Your task to perform on an android device: turn on improve location accuracy Image 0: 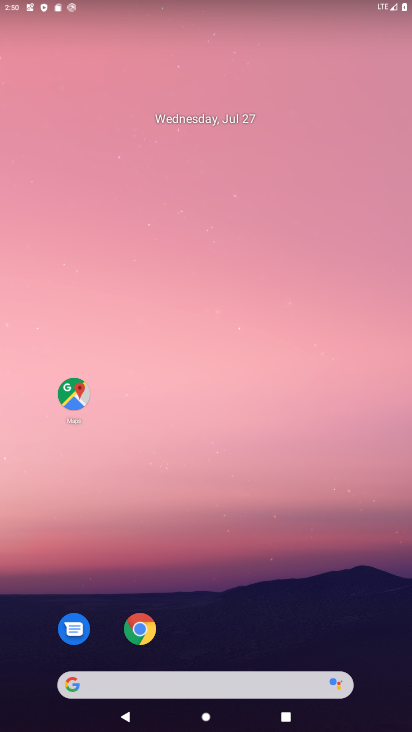
Step 0: click (176, 364)
Your task to perform on an android device: turn on improve location accuracy Image 1: 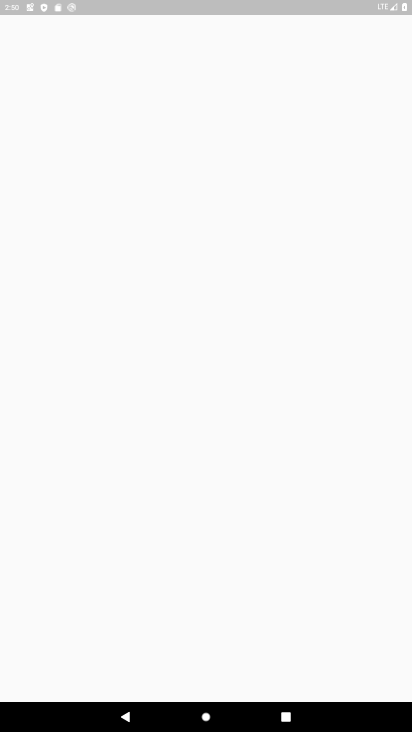
Step 1: drag from (188, 11) to (210, 416)
Your task to perform on an android device: turn on improve location accuracy Image 2: 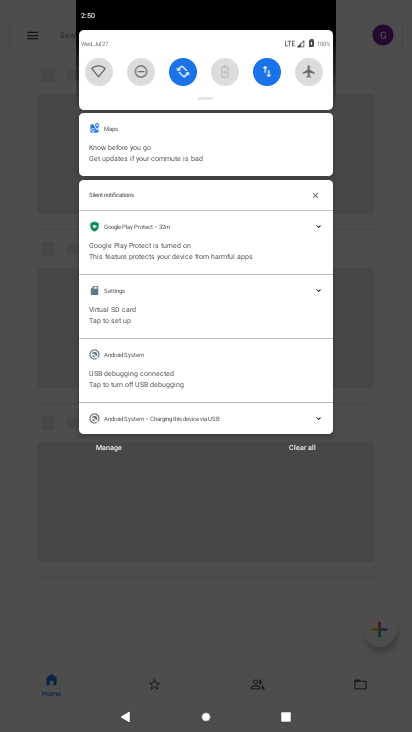
Step 2: press home button
Your task to perform on an android device: turn on improve location accuracy Image 3: 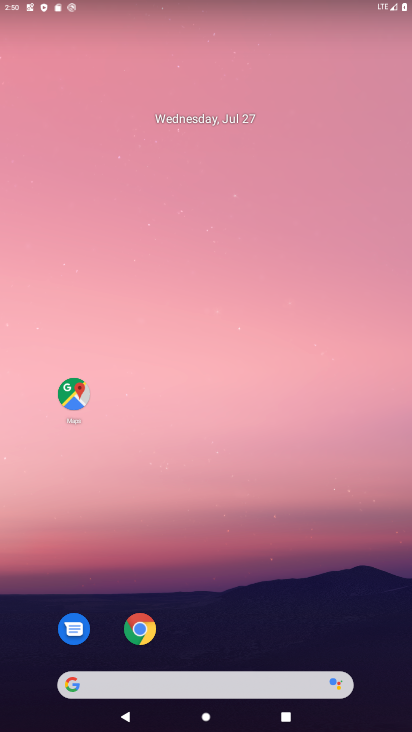
Step 3: drag from (200, 636) to (232, 33)
Your task to perform on an android device: turn on improve location accuracy Image 4: 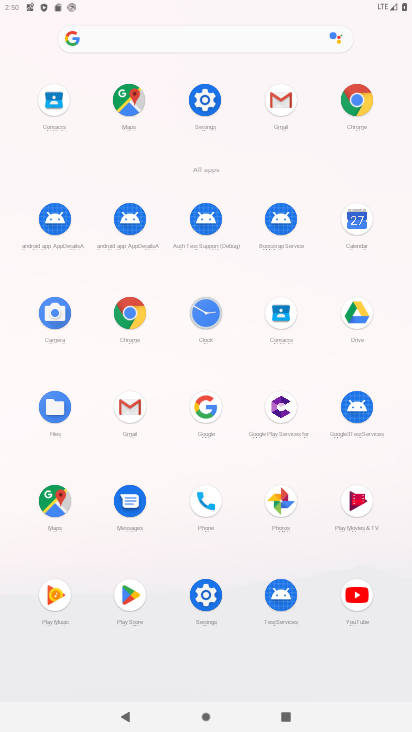
Step 4: click (194, 118)
Your task to perform on an android device: turn on improve location accuracy Image 5: 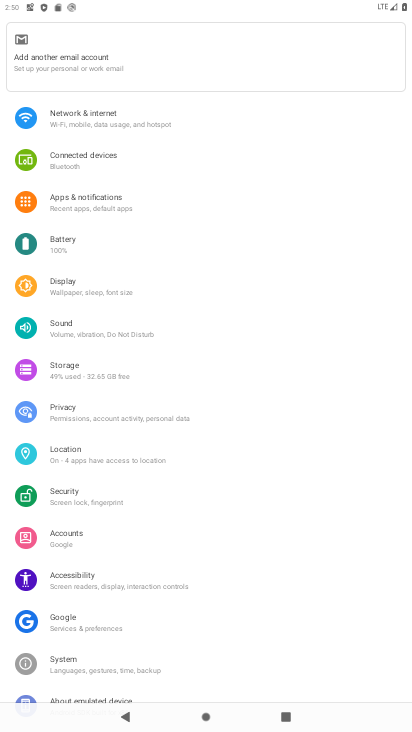
Step 5: click (113, 458)
Your task to perform on an android device: turn on improve location accuracy Image 6: 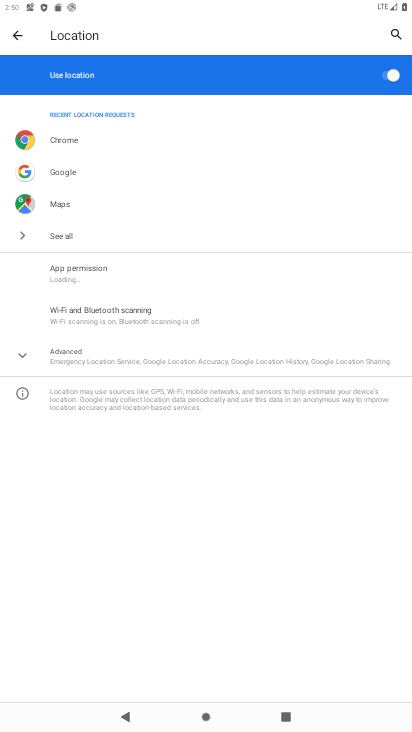
Step 6: click (79, 363)
Your task to perform on an android device: turn on improve location accuracy Image 7: 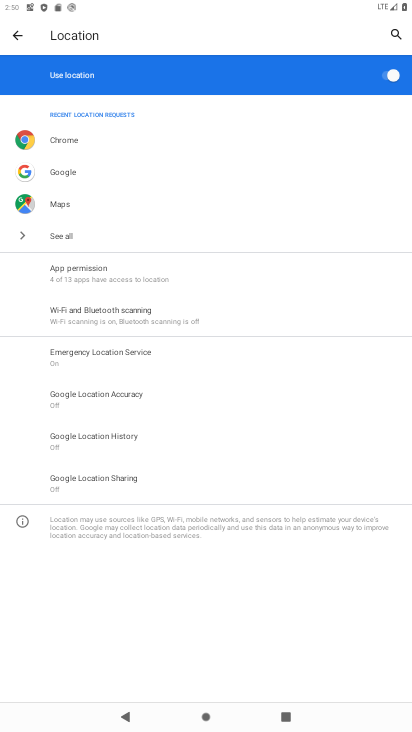
Step 7: click (73, 390)
Your task to perform on an android device: turn on improve location accuracy Image 8: 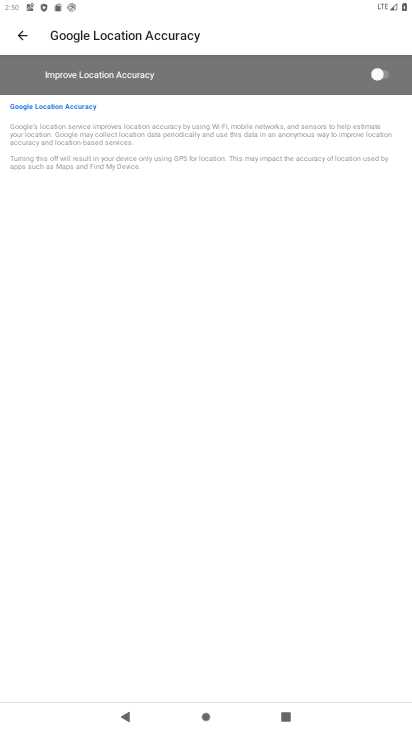
Step 8: click (379, 87)
Your task to perform on an android device: turn on improve location accuracy Image 9: 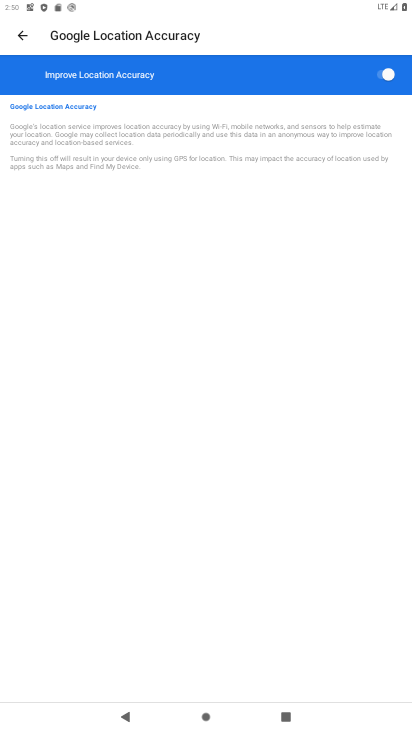
Step 9: task complete